Your task to perform on an android device: Open Chrome and go to the settings page Image 0: 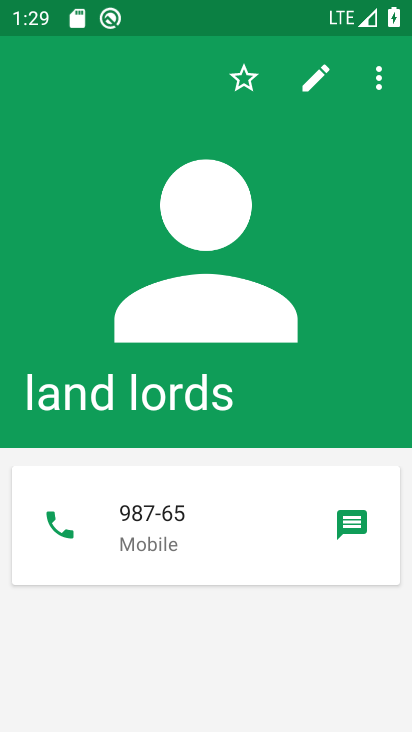
Step 0: press home button
Your task to perform on an android device: Open Chrome and go to the settings page Image 1: 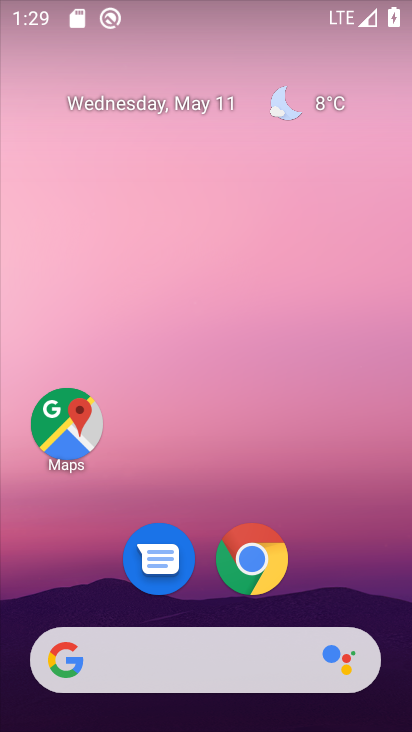
Step 1: click (256, 561)
Your task to perform on an android device: Open Chrome and go to the settings page Image 2: 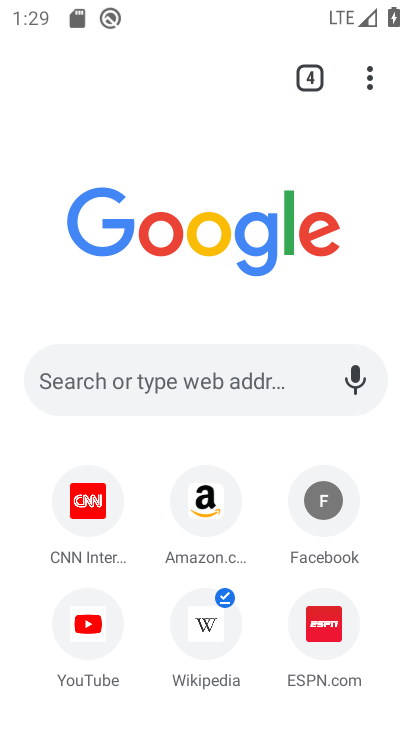
Step 2: click (369, 84)
Your task to perform on an android device: Open Chrome and go to the settings page Image 3: 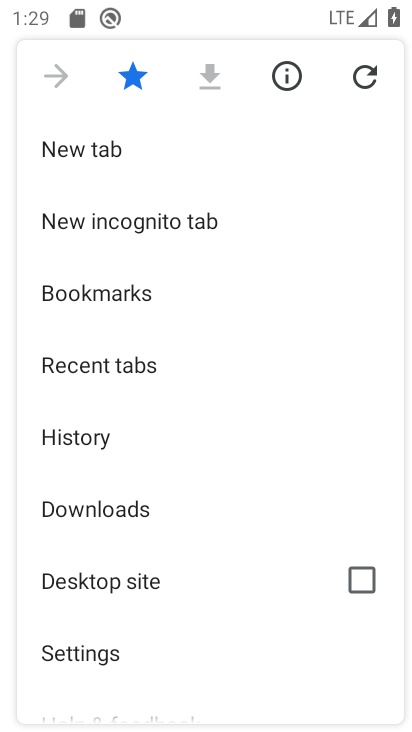
Step 3: click (76, 648)
Your task to perform on an android device: Open Chrome and go to the settings page Image 4: 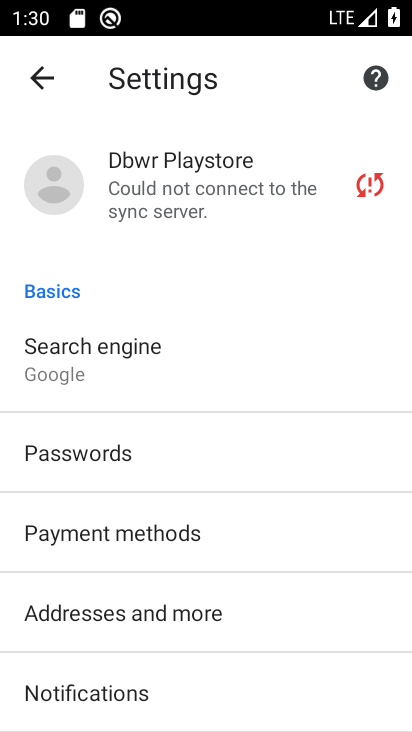
Step 4: task complete